Your task to perform on an android device: Go to privacy settings Image 0: 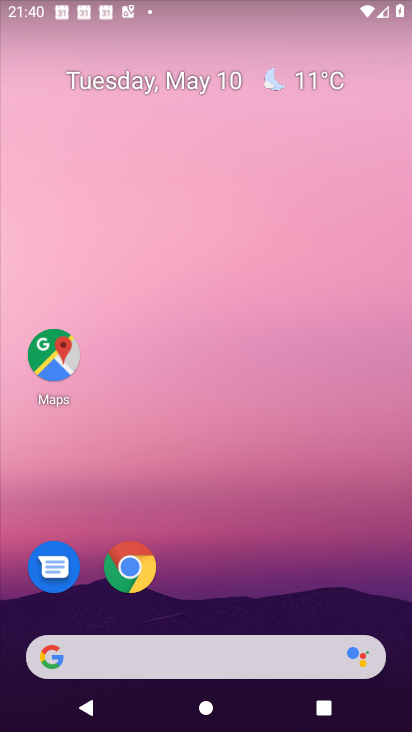
Step 0: drag from (229, 636) to (211, 145)
Your task to perform on an android device: Go to privacy settings Image 1: 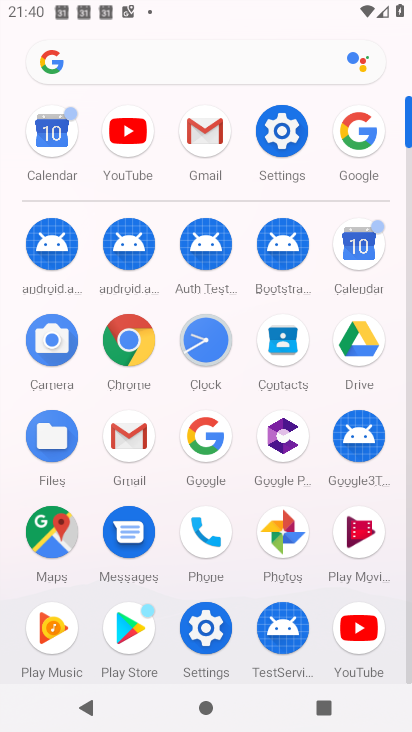
Step 1: click (270, 131)
Your task to perform on an android device: Go to privacy settings Image 2: 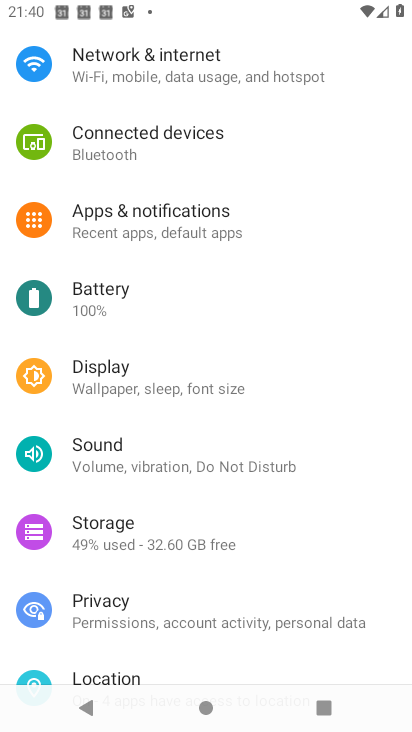
Step 2: click (102, 611)
Your task to perform on an android device: Go to privacy settings Image 3: 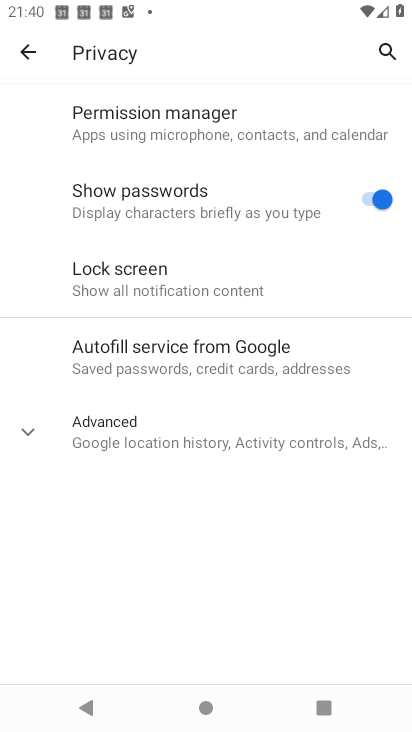
Step 3: click (165, 431)
Your task to perform on an android device: Go to privacy settings Image 4: 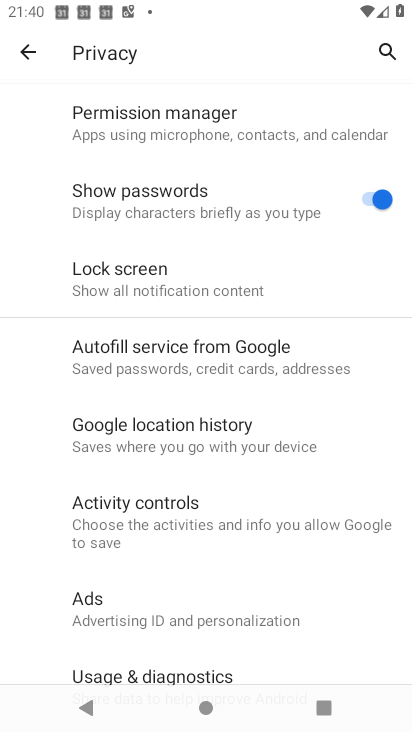
Step 4: task complete